Your task to perform on an android device: Add logitech g910 to the cart on ebay Image 0: 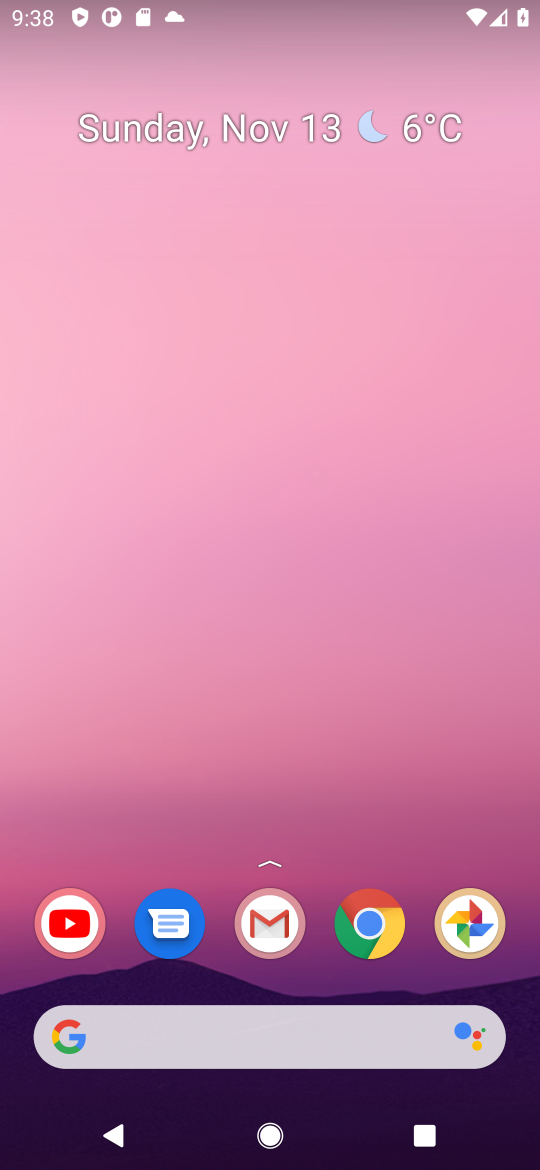
Step 0: click (374, 923)
Your task to perform on an android device: Add logitech g910 to the cart on ebay Image 1: 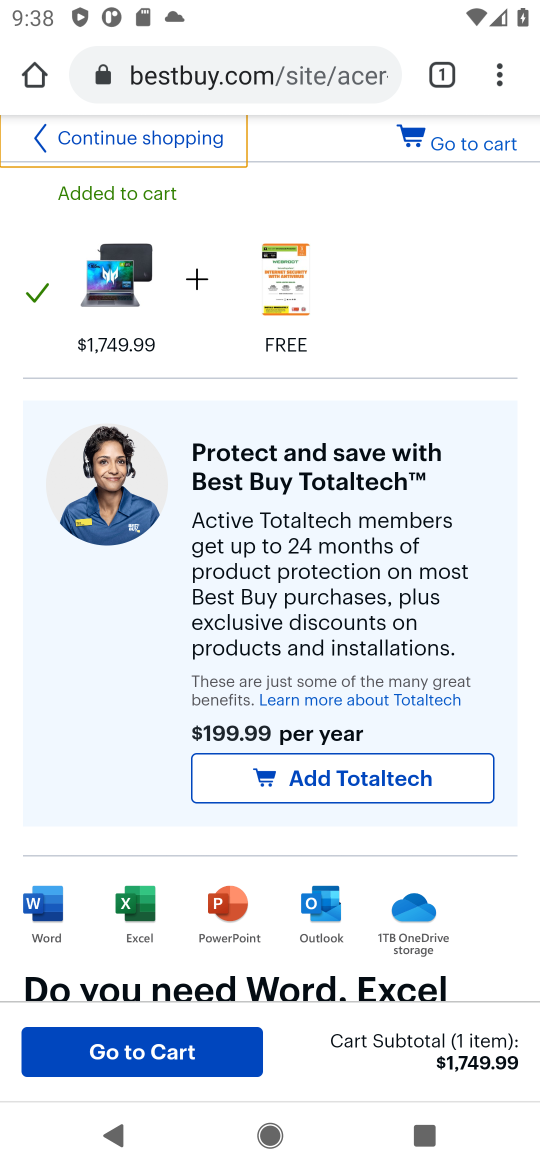
Step 1: click (263, 63)
Your task to perform on an android device: Add logitech g910 to the cart on ebay Image 2: 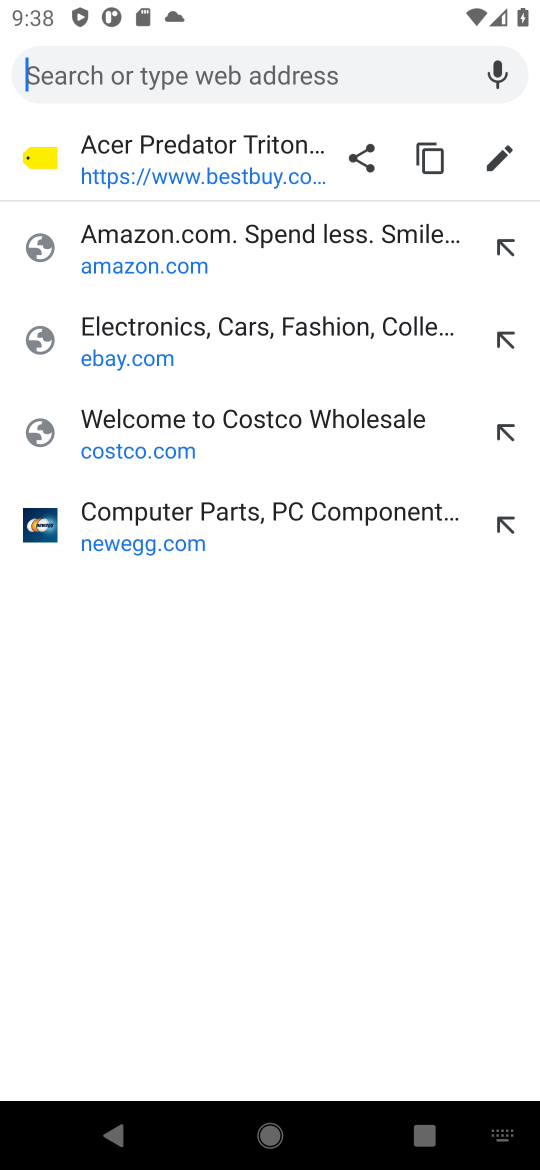
Step 2: click (206, 330)
Your task to perform on an android device: Add logitech g910 to the cart on ebay Image 3: 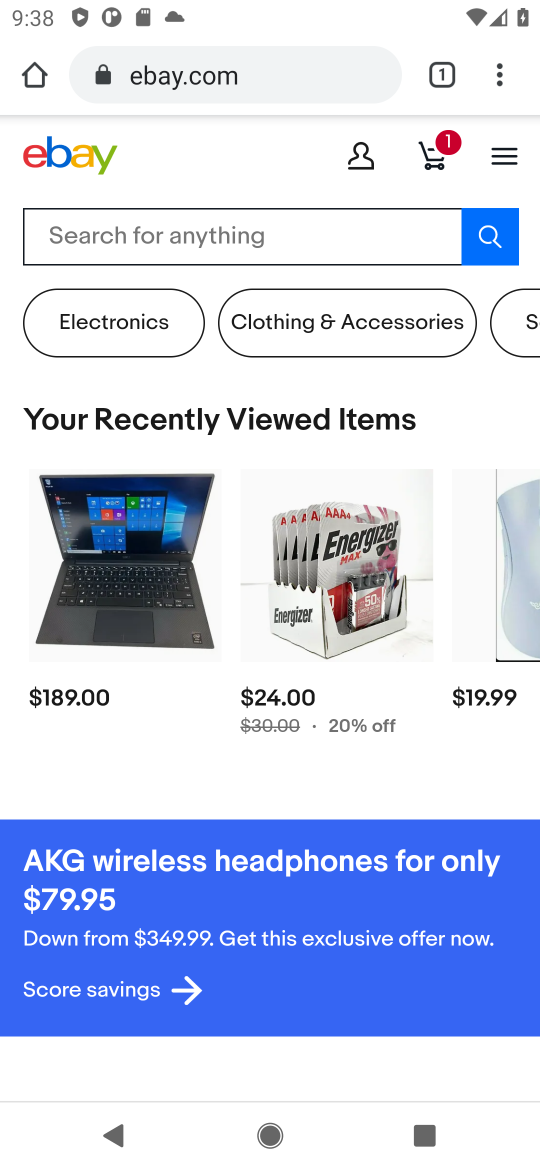
Step 3: click (306, 237)
Your task to perform on an android device: Add logitech g910 to the cart on ebay Image 4: 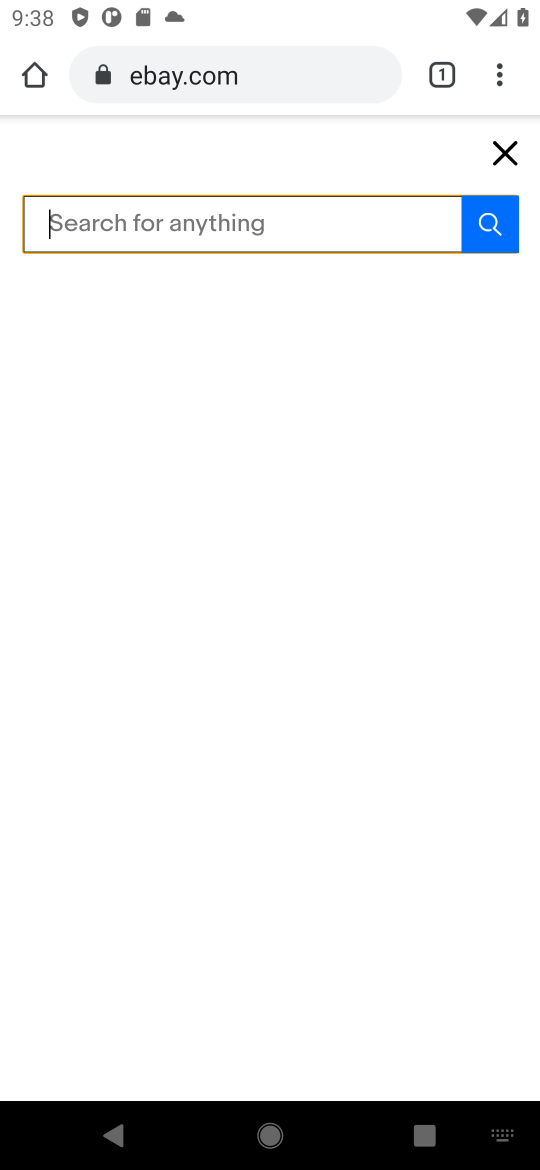
Step 4: type "logitech g910 "
Your task to perform on an android device: Add logitech g910 to the cart on ebay Image 5: 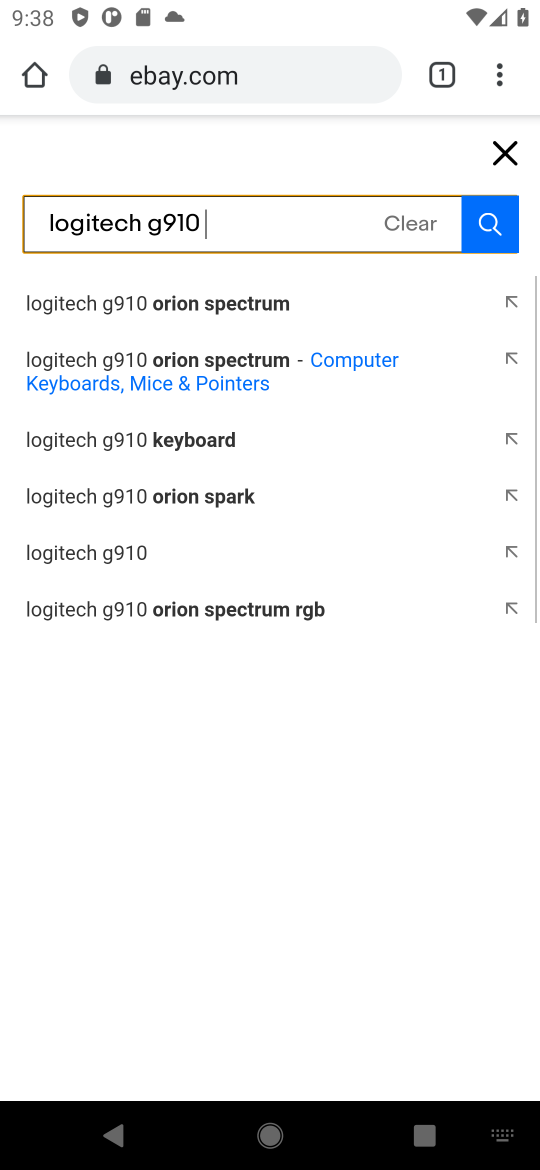
Step 5: press enter
Your task to perform on an android device: Add logitech g910 to the cart on ebay Image 6: 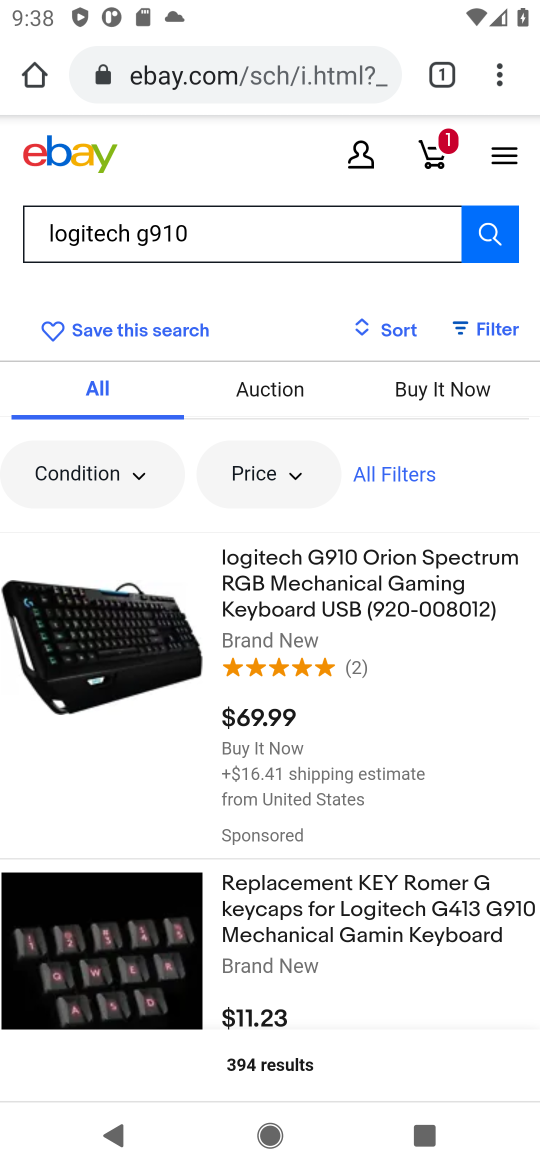
Step 6: click (86, 639)
Your task to perform on an android device: Add logitech g910 to the cart on ebay Image 7: 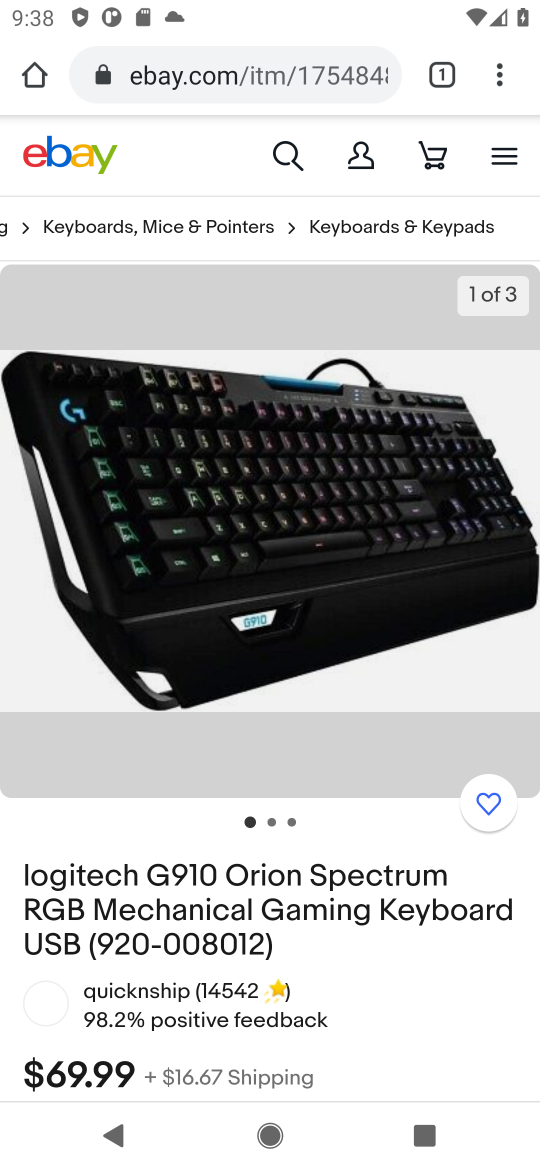
Step 7: drag from (429, 971) to (347, 335)
Your task to perform on an android device: Add logitech g910 to the cart on ebay Image 8: 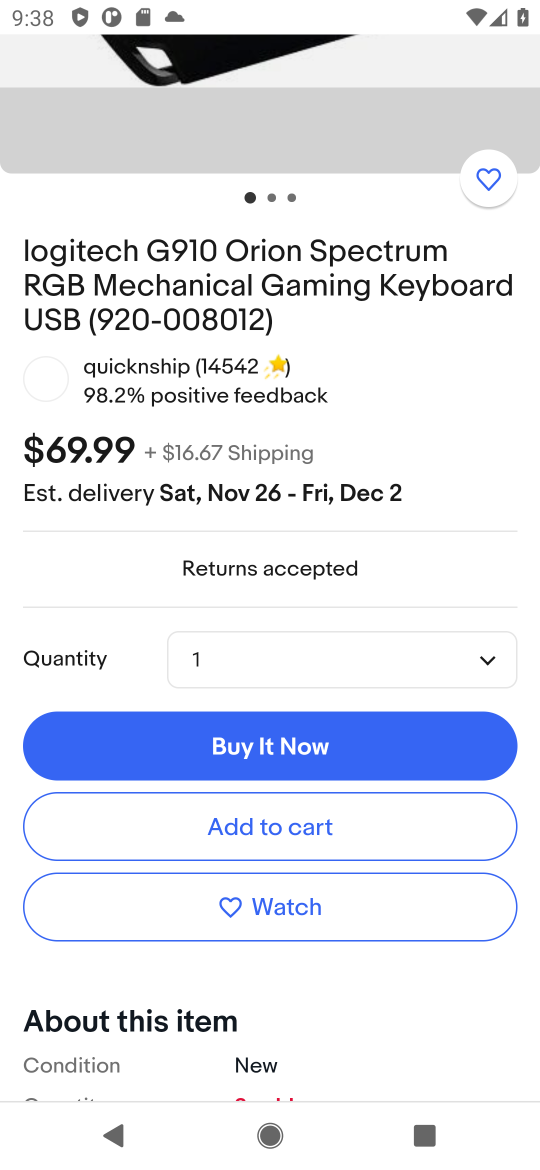
Step 8: click (293, 821)
Your task to perform on an android device: Add logitech g910 to the cart on ebay Image 9: 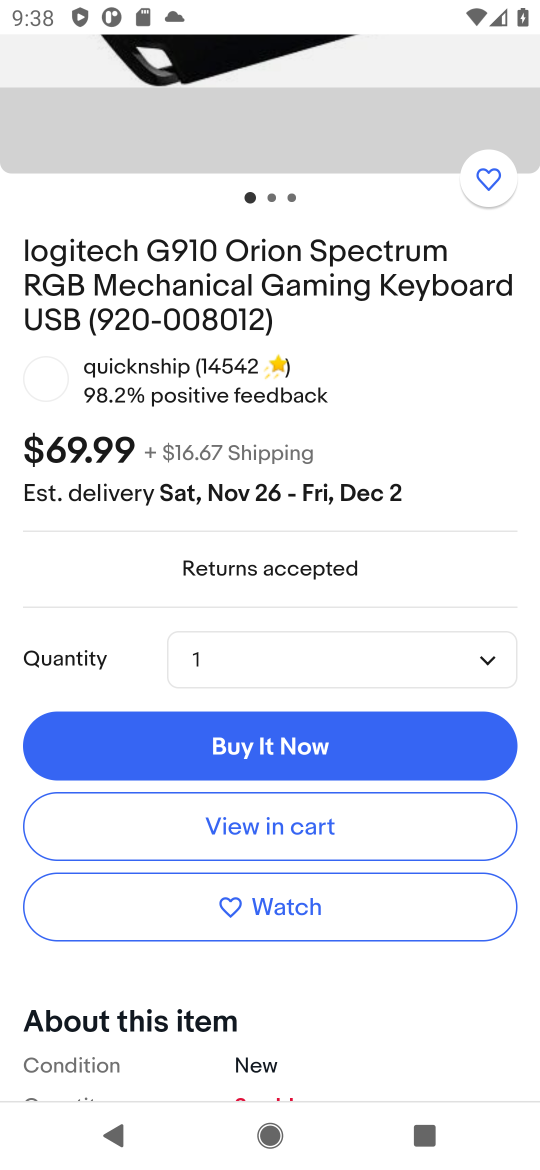
Step 9: task complete